Your task to perform on an android device: Open calendar and show me the first week of next month Image 0: 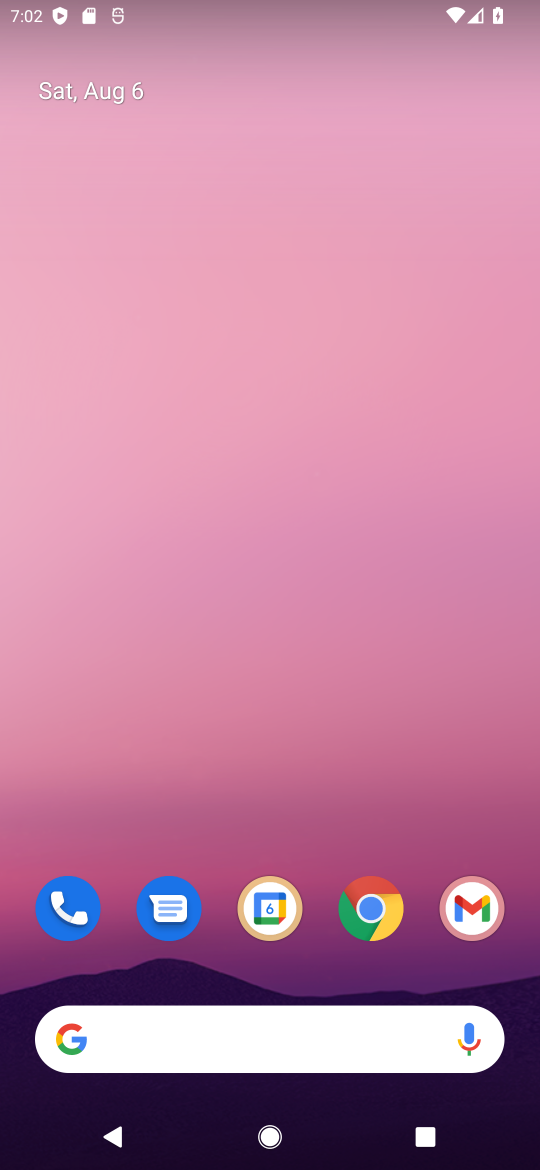
Step 0: drag from (388, 849) to (330, 101)
Your task to perform on an android device: Open calendar and show me the first week of next month Image 1: 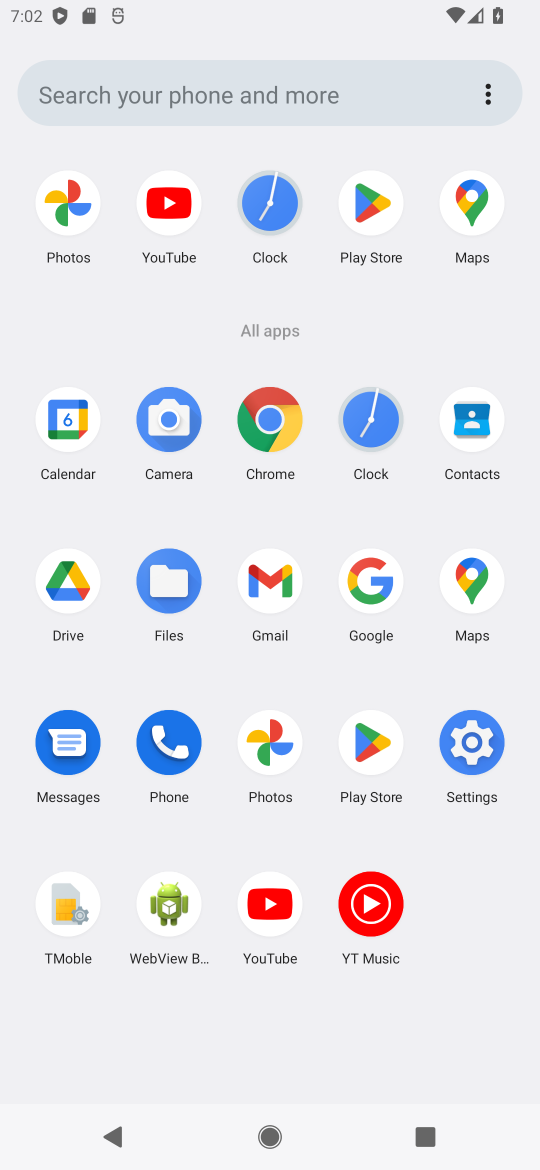
Step 1: click (70, 411)
Your task to perform on an android device: Open calendar and show me the first week of next month Image 2: 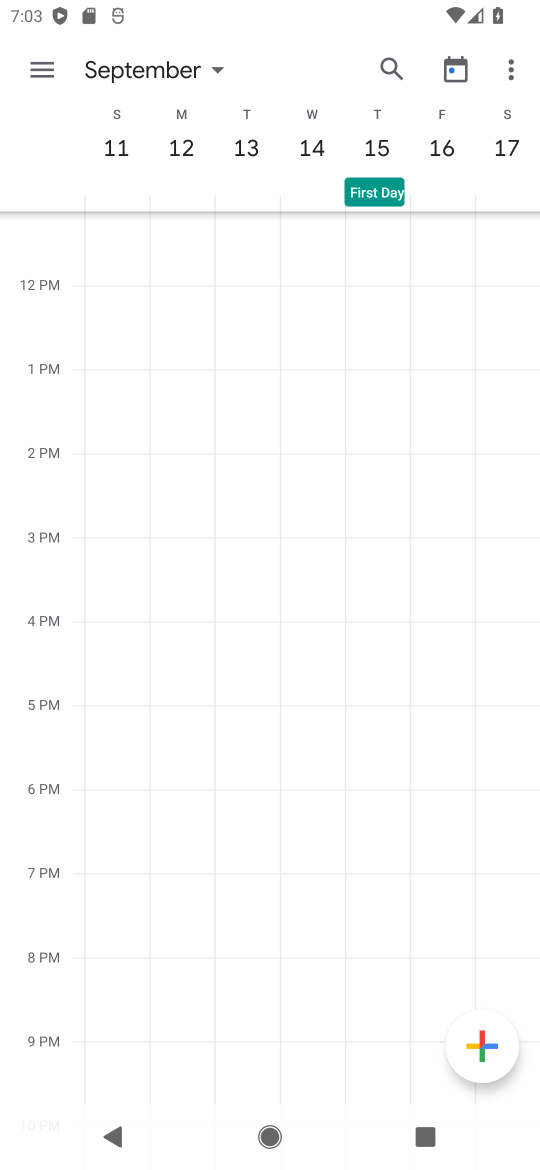
Step 2: click (134, 54)
Your task to perform on an android device: Open calendar and show me the first week of next month Image 3: 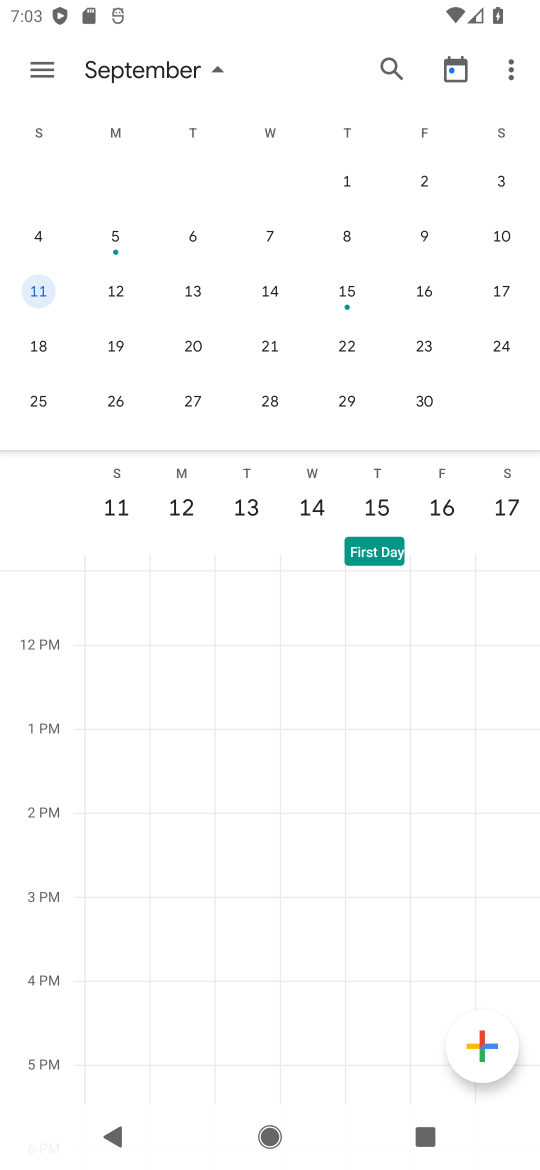
Step 3: click (264, 231)
Your task to perform on an android device: Open calendar and show me the first week of next month Image 4: 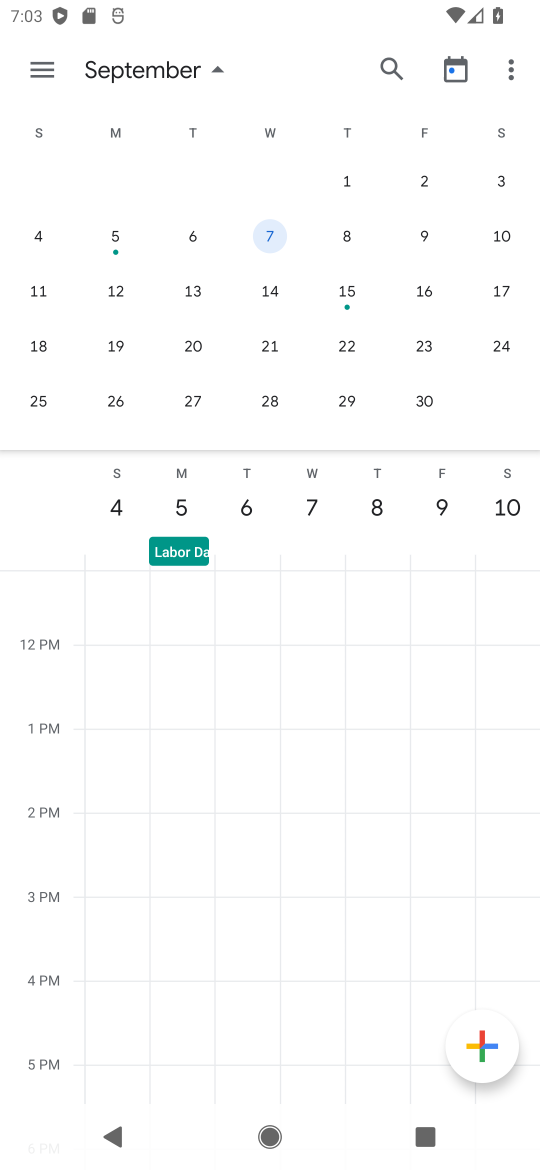
Step 4: task complete